Your task to perform on an android device: Play the new Maroon 5 video on YouTube Image 0: 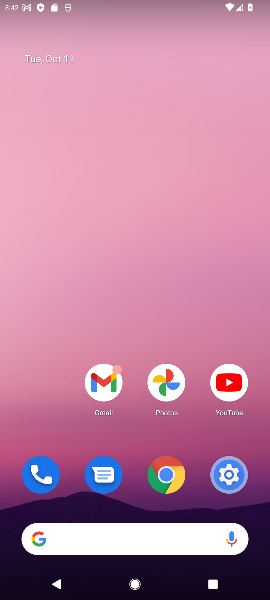
Step 0: click (232, 401)
Your task to perform on an android device: Play the new Maroon 5 video on YouTube Image 1: 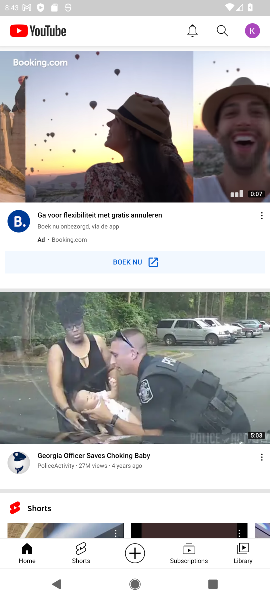
Step 1: click (226, 32)
Your task to perform on an android device: Play the new Maroon 5 video on YouTube Image 2: 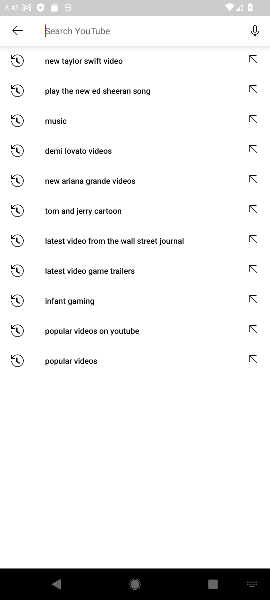
Step 2: type "new Maroon 5 video on YouTube"
Your task to perform on an android device: Play the new Maroon 5 video on YouTube Image 3: 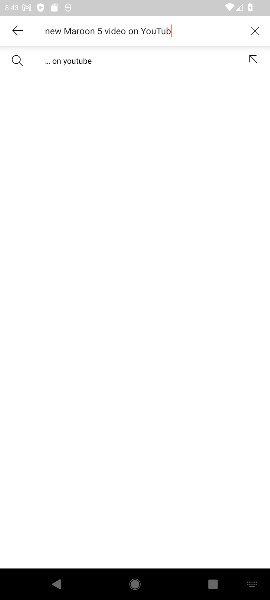
Step 3: type ""
Your task to perform on an android device: Play the new Maroon 5 video on YouTube Image 4: 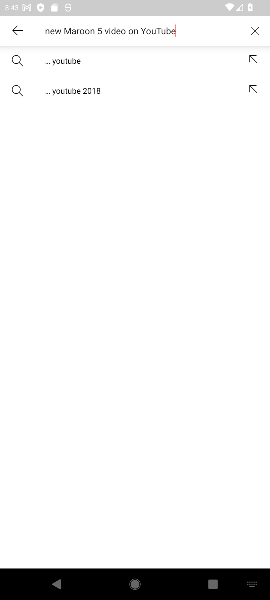
Step 4: press enter
Your task to perform on an android device: Play the new Maroon 5 video on YouTube Image 5: 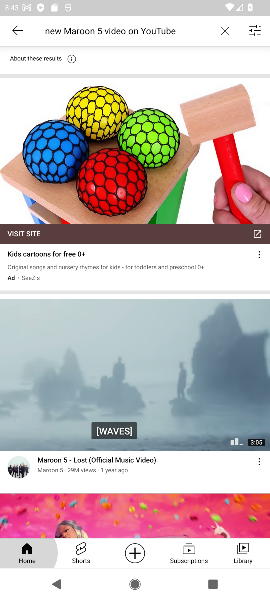
Step 5: click (48, 464)
Your task to perform on an android device: Play the new Maroon 5 video on YouTube Image 6: 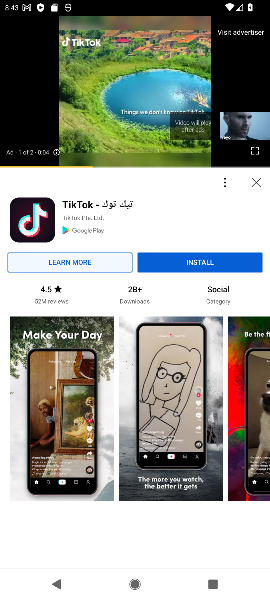
Step 6: click (253, 183)
Your task to perform on an android device: Play the new Maroon 5 video on YouTube Image 7: 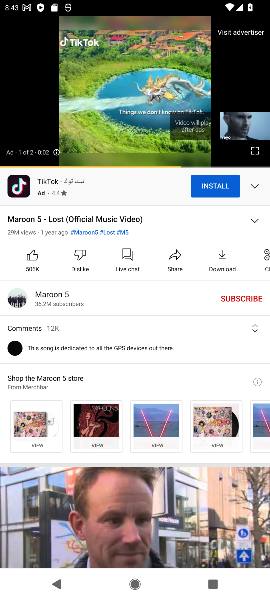
Step 7: click (55, 297)
Your task to perform on an android device: Play the new Maroon 5 video on YouTube Image 8: 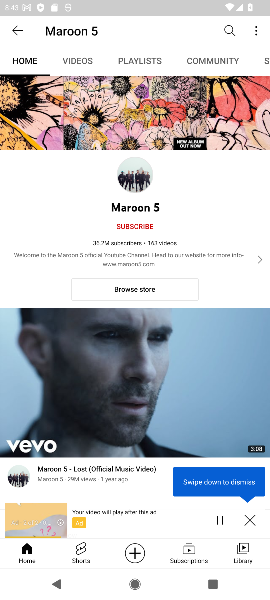
Step 8: click (88, 57)
Your task to perform on an android device: Play the new Maroon 5 video on YouTube Image 9: 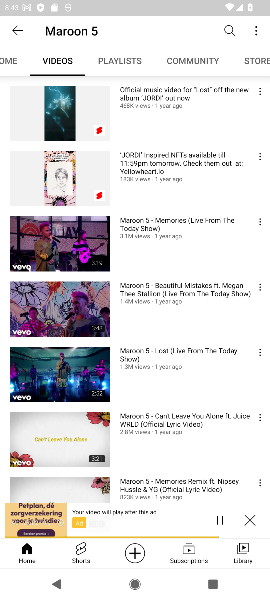
Step 9: click (252, 525)
Your task to perform on an android device: Play the new Maroon 5 video on YouTube Image 10: 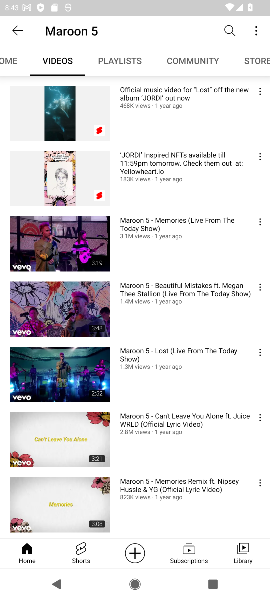
Step 10: click (136, 241)
Your task to perform on an android device: Play the new Maroon 5 video on YouTube Image 11: 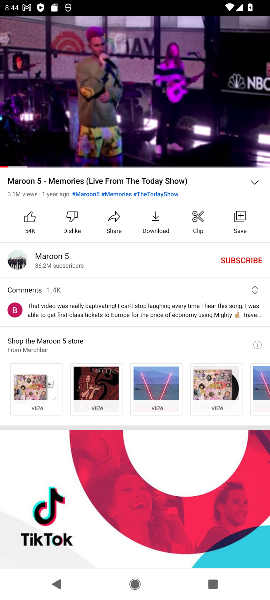
Step 11: drag from (109, 513) to (159, 379)
Your task to perform on an android device: Play the new Maroon 5 video on YouTube Image 12: 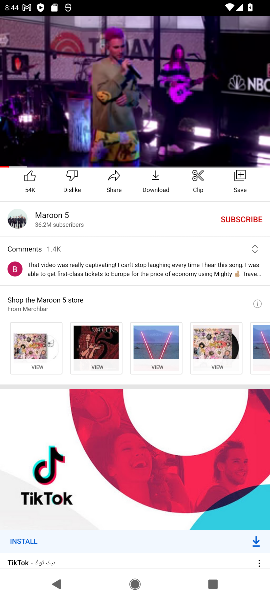
Step 12: drag from (139, 502) to (155, 307)
Your task to perform on an android device: Play the new Maroon 5 video on YouTube Image 13: 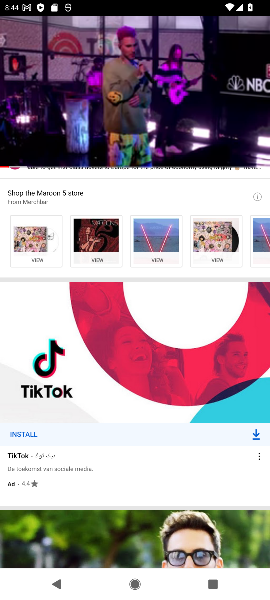
Step 13: drag from (131, 492) to (159, 292)
Your task to perform on an android device: Play the new Maroon 5 video on YouTube Image 14: 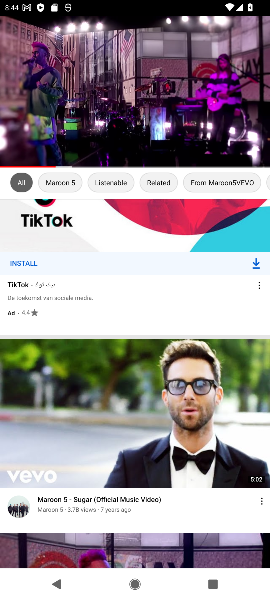
Step 14: drag from (210, 435) to (241, 65)
Your task to perform on an android device: Play the new Maroon 5 video on YouTube Image 15: 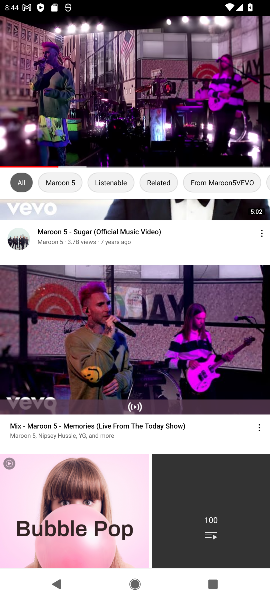
Step 15: drag from (132, 406) to (140, 192)
Your task to perform on an android device: Play the new Maroon 5 video on YouTube Image 16: 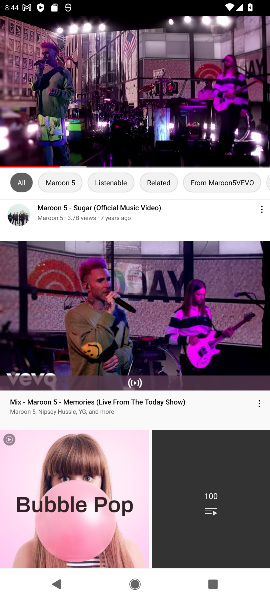
Step 16: drag from (117, 338) to (130, 239)
Your task to perform on an android device: Play the new Maroon 5 video on YouTube Image 17: 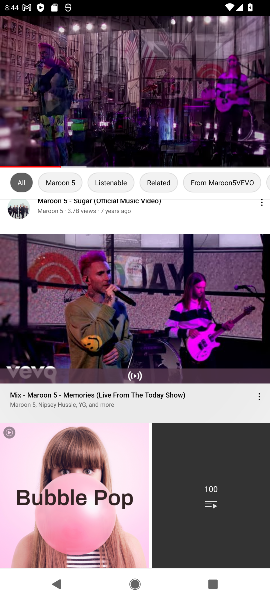
Step 17: drag from (158, 413) to (175, 205)
Your task to perform on an android device: Play the new Maroon 5 video on YouTube Image 18: 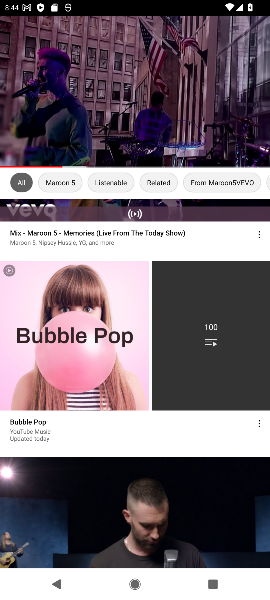
Step 18: drag from (166, 383) to (157, 189)
Your task to perform on an android device: Play the new Maroon 5 video on YouTube Image 19: 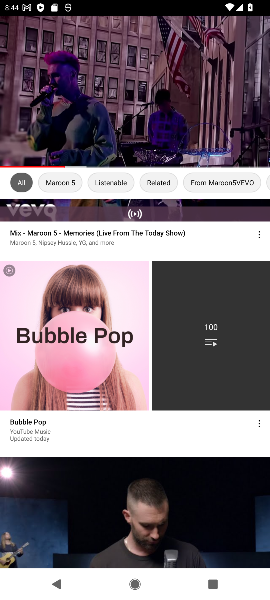
Step 19: drag from (162, 416) to (161, 172)
Your task to perform on an android device: Play the new Maroon 5 video on YouTube Image 20: 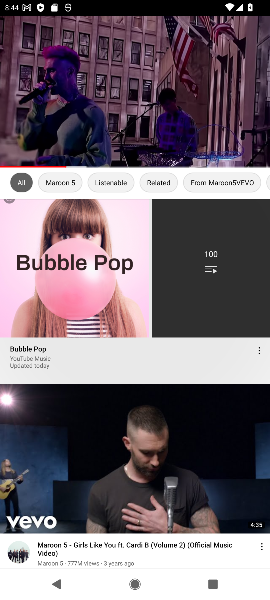
Step 20: drag from (145, 219) to (146, 94)
Your task to perform on an android device: Play the new Maroon 5 video on YouTube Image 21: 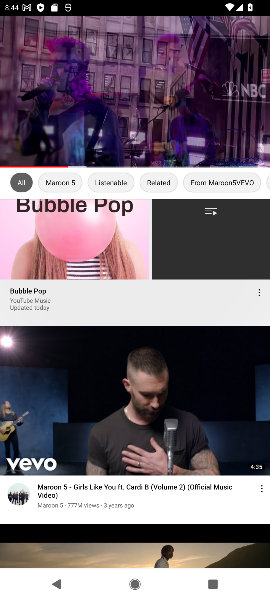
Step 21: drag from (102, 389) to (134, 144)
Your task to perform on an android device: Play the new Maroon 5 video on YouTube Image 22: 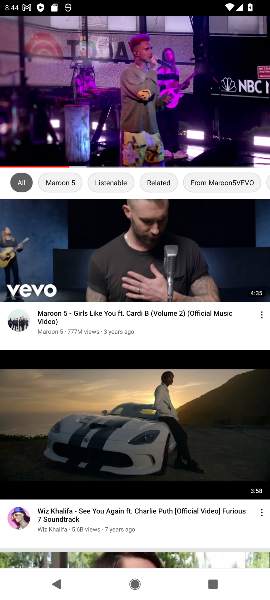
Step 22: drag from (147, 419) to (156, 303)
Your task to perform on an android device: Play the new Maroon 5 video on YouTube Image 23: 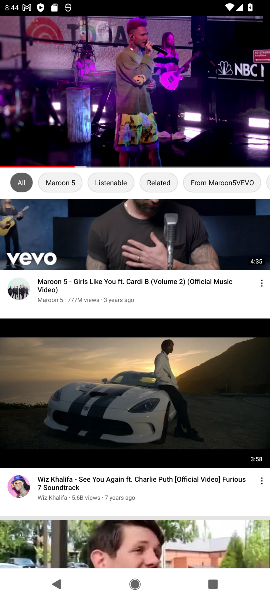
Step 23: drag from (124, 447) to (147, 116)
Your task to perform on an android device: Play the new Maroon 5 video on YouTube Image 24: 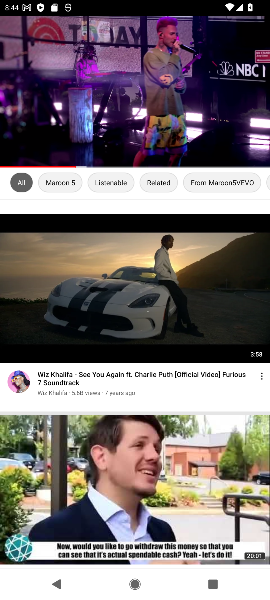
Step 24: drag from (159, 320) to (162, 89)
Your task to perform on an android device: Play the new Maroon 5 video on YouTube Image 25: 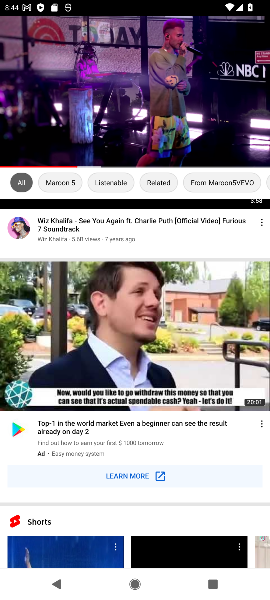
Step 25: drag from (155, 375) to (181, 92)
Your task to perform on an android device: Play the new Maroon 5 video on YouTube Image 26: 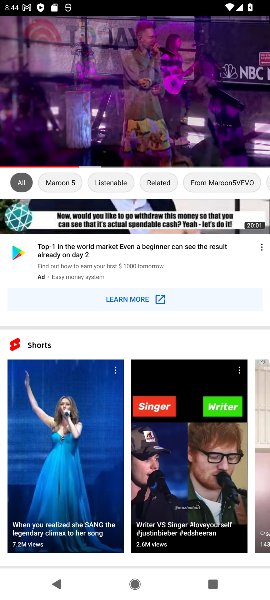
Step 26: drag from (147, 279) to (168, 97)
Your task to perform on an android device: Play the new Maroon 5 video on YouTube Image 27: 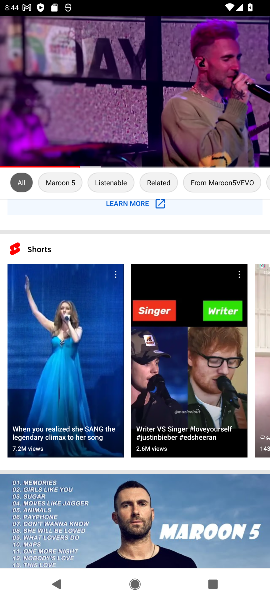
Step 27: drag from (155, 258) to (156, 172)
Your task to perform on an android device: Play the new Maroon 5 video on YouTube Image 28: 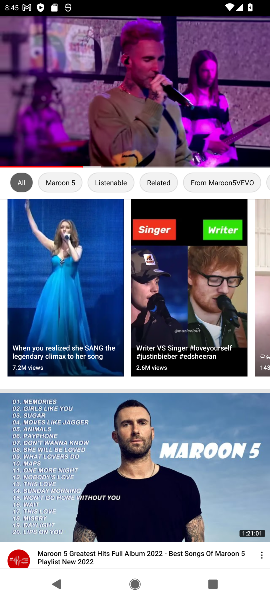
Step 28: drag from (130, 389) to (149, 198)
Your task to perform on an android device: Play the new Maroon 5 video on YouTube Image 29: 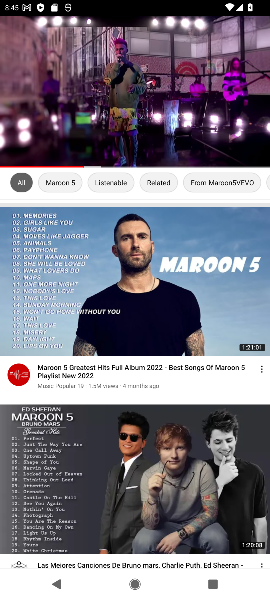
Step 29: drag from (148, 443) to (164, 183)
Your task to perform on an android device: Play the new Maroon 5 video on YouTube Image 30: 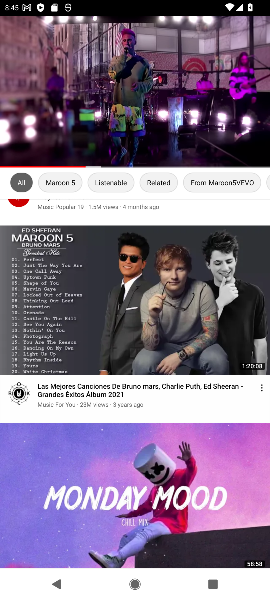
Step 30: drag from (126, 452) to (136, 279)
Your task to perform on an android device: Play the new Maroon 5 video on YouTube Image 31: 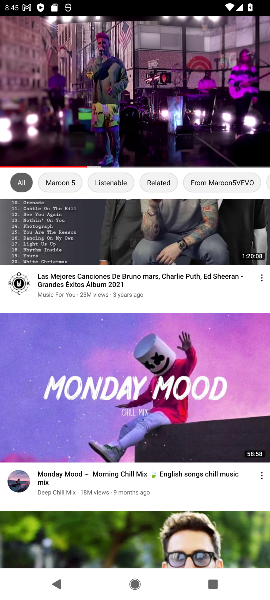
Step 31: drag from (125, 439) to (151, 190)
Your task to perform on an android device: Play the new Maroon 5 video on YouTube Image 32: 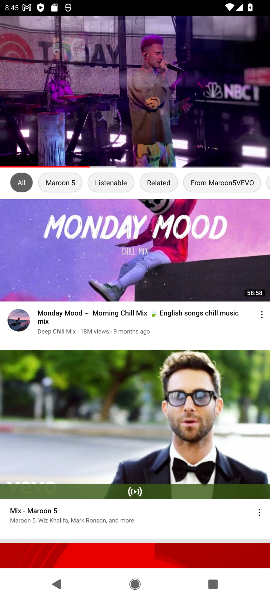
Step 32: drag from (131, 352) to (172, 149)
Your task to perform on an android device: Play the new Maroon 5 video on YouTube Image 33: 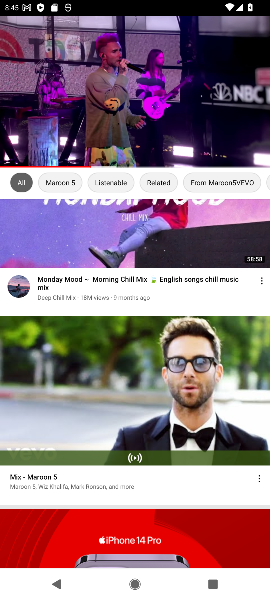
Step 33: drag from (181, 369) to (177, 164)
Your task to perform on an android device: Play the new Maroon 5 video on YouTube Image 34: 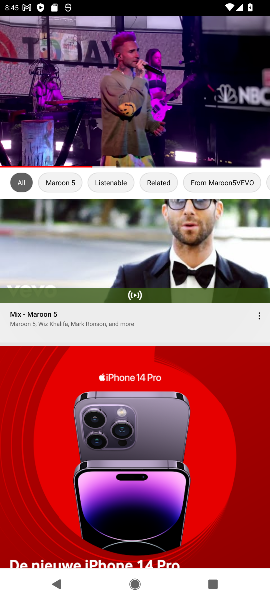
Step 34: drag from (178, 292) to (174, 165)
Your task to perform on an android device: Play the new Maroon 5 video on YouTube Image 35: 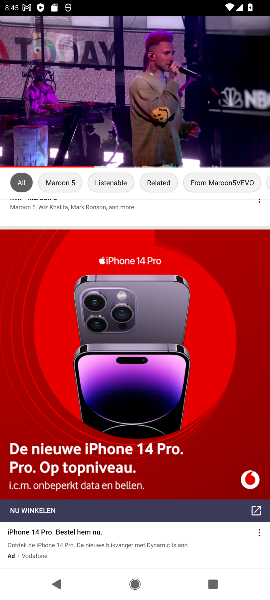
Step 35: drag from (163, 332) to (156, 183)
Your task to perform on an android device: Play the new Maroon 5 video on YouTube Image 36: 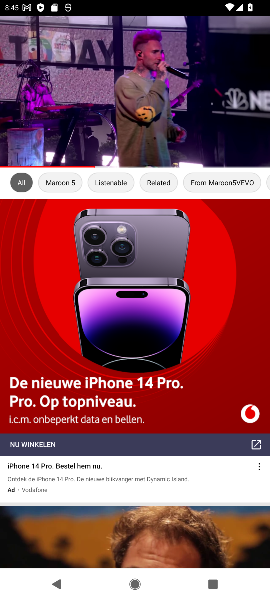
Step 36: drag from (134, 447) to (142, 199)
Your task to perform on an android device: Play the new Maroon 5 video on YouTube Image 37: 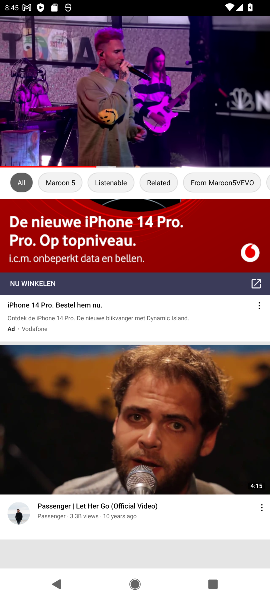
Step 37: drag from (135, 411) to (147, 216)
Your task to perform on an android device: Play the new Maroon 5 video on YouTube Image 38: 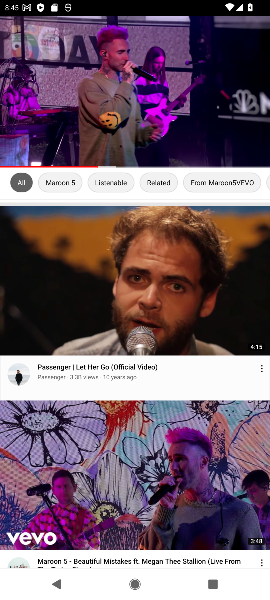
Step 38: drag from (147, 384) to (149, 213)
Your task to perform on an android device: Play the new Maroon 5 video on YouTube Image 39: 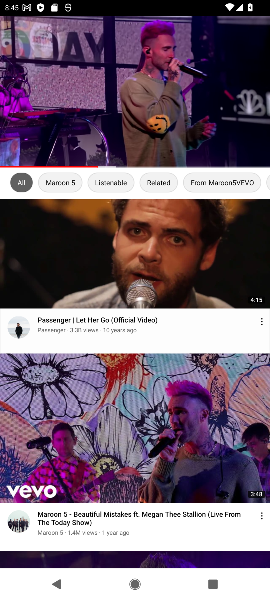
Step 39: drag from (147, 290) to (150, 214)
Your task to perform on an android device: Play the new Maroon 5 video on YouTube Image 40: 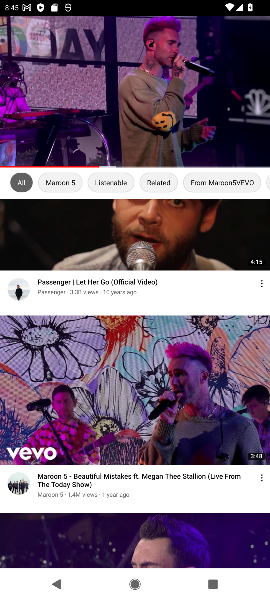
Step 40: drag from (132, 375) to (145, 208)
Your task to perform on an android device: Play the new Maroon 5 video on YouTube Image 41: 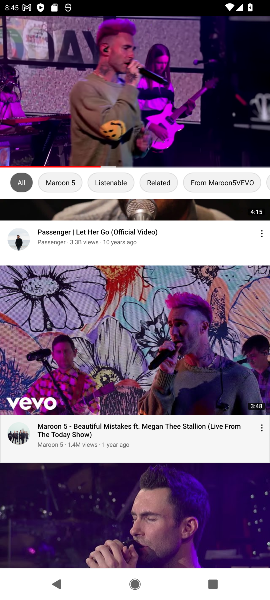
Step 41: drag from (133, 427) to (146, 217)
Your task to perform on an android device: Play the new Maroon 5 video on YouTube Image 42: 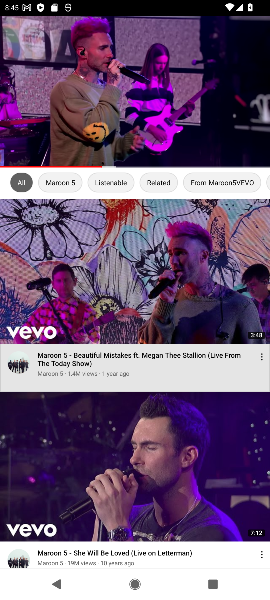
Step 42: drag from (105, 448) to (113, 284)
Your task to perform on an android device: Play the new Maroon 5 video on YouTube Image 43: 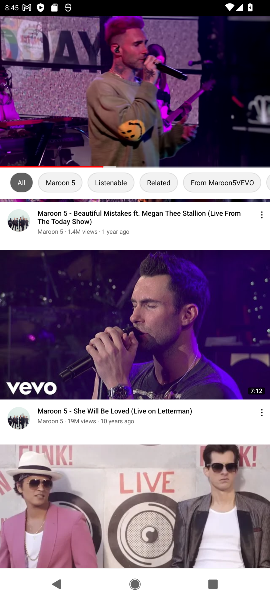
Step 43: drag from (90, 435) to (93, 244)
Your task to perform on an android device: Play the new Maroon 5 video on YouTube Image 44: 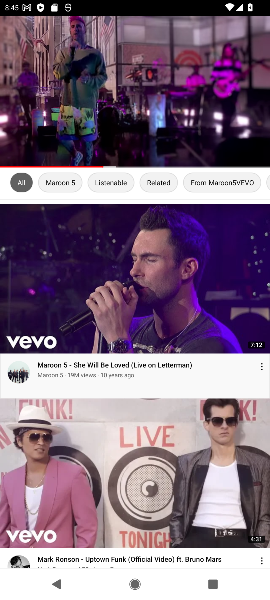
Step 44: drag from (115, 410) to (141, 165)
Your task to perform on an android device: Play the new Maroon 5 video on YouTube Image 45: 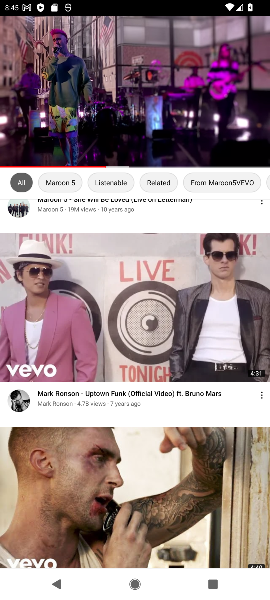
Step 45: drag from (144, 330) to (127, 160)
Your task to perform on an android device: Play the new Maroon 5 video on YouTube Image 46: 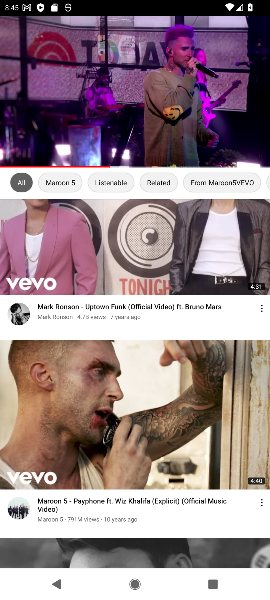
Step 46: drag from (174, 435) to (170, 227)
Your task to perform on an android device: Play the new Maroon 5 video on YouTube Image 47: 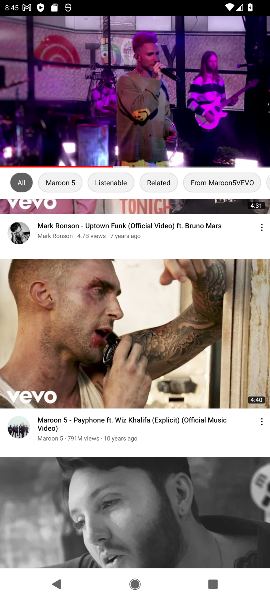
Step 47: drag from (177, 377) to (186, 279)
Your task to perform on an android device: Play the new Maroon 5 video on YouTube Image 48: 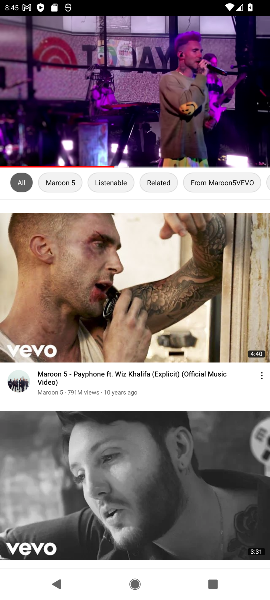
Step 48: drag from (161, 555) to (171, 250)
Your task to perform on an android device: Play the new Maroon 5 video on YouTube Image 49: 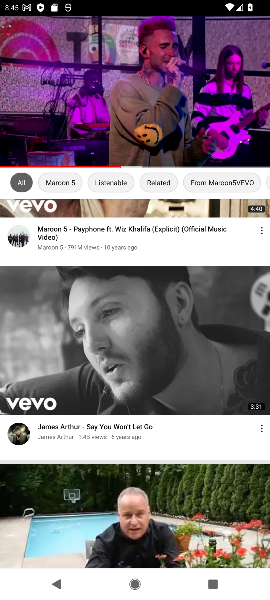
Step 49: drag from (97, 505) to (123, 345)
Your task to perform on an android device: Play the new Maroon 5 video on YouTube Image 50: 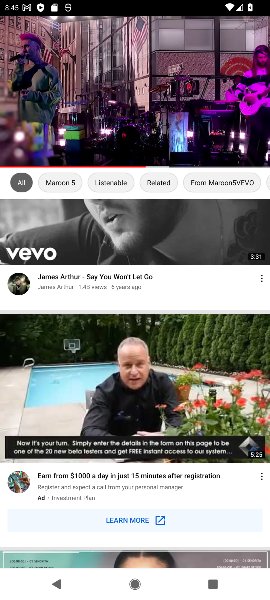
Step 50: drag from (201, 433) to (212, 173)
Your task to perform on an android device: Play the new Maroon 5 video on YouTube Image 51: 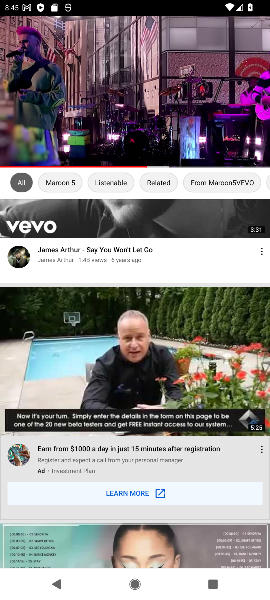
Step 51: drag from (212, 307) to (204, 164)
Your task to perform on an android device: Play the new Maroon 5 video on YouTube Image 52: 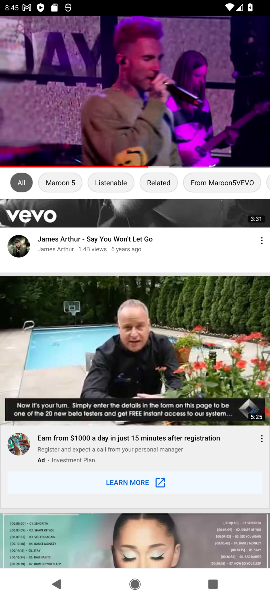
Step 52: drag from (140, 277) to (145, 117)
Your task to perform on an android device: Play the new Maroon 5 video on YouTube Image 53: 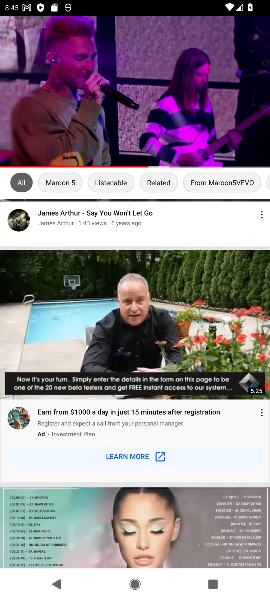
Step 53: drag from (156, 467) to (188, 165)
Your task to perform on an android device: Play the new Maroon 5 video on YouTube Image 54: 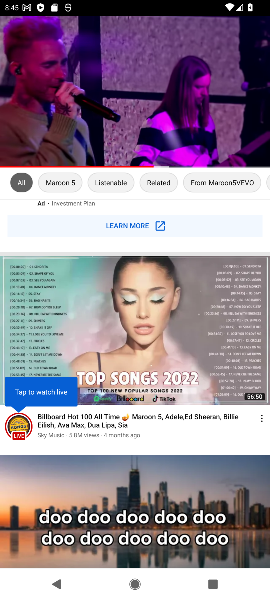
Step 54: drag from (114, 429) to (129, 55)
Your task to perform on an android device: Play the new Maroon 5 video on YouTube Image 55: 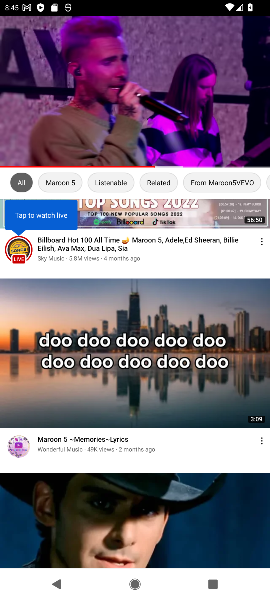
Step 55: drag from (116, 208) to (107, 107)
Your task to perform on an android device: Play the new Maroon 5 video on YouTube Image 56: 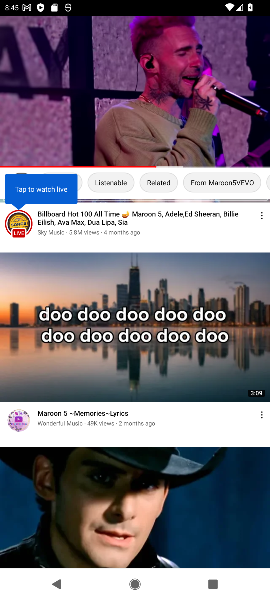
Step 56: drag from (86, 353) to (98, 98)
Your task to perform on an android device: Play the new Maroon 5 video on YouTube Image 57: 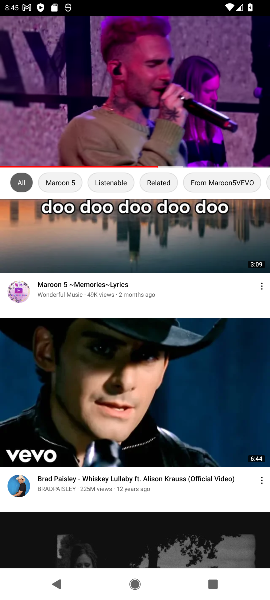
Step 57: drag from (135, 362) to (133, 103)
Your task to perform on an android device: Play the new Maroon 5 video on YouTube Image 58: 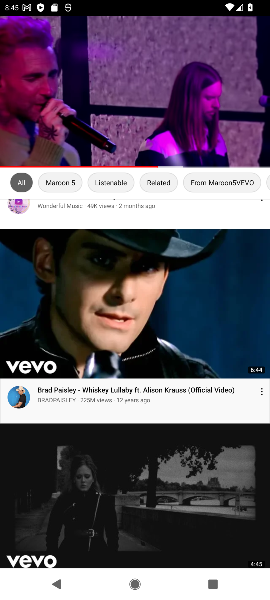
Step 58: drag from (165, 304) to (164, 99)
Your task to perform on an android device: Play the new Maroon 5 video on YouTube Image 59: 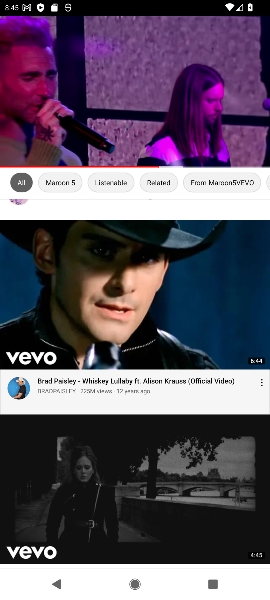
Step 59: drag from (183, 382) to (190, 140)
Your task to perform on an android device: Play the new Maroon 5 video on YouTube Image 60: 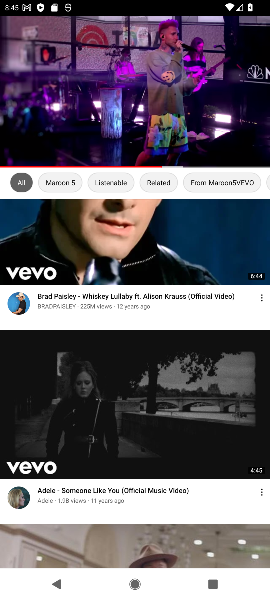
Step 60: drag from (87, 293) to (114, 81)
Your task to perform on an android device: Play the new Maroon 5 video on YouTube Image 61: 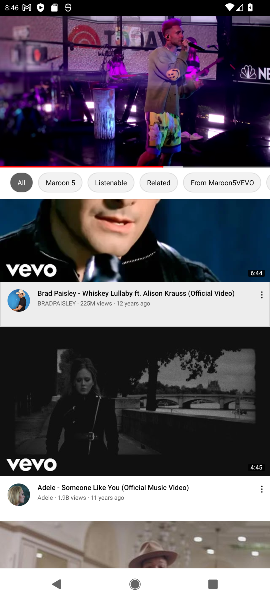
Step 61: drag from (143, 351) to (139, 135)
Your task to perform on an android device: Play the new Maroon 5 video on YouTube Image 62: 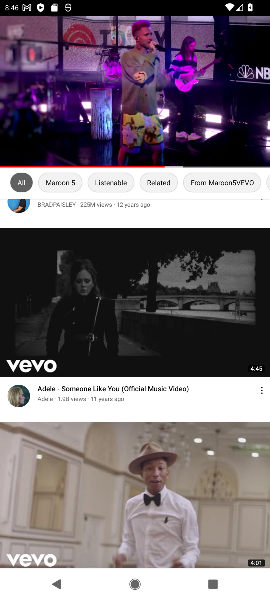
Step 62: drag from (150, 388) to (155, 118)
Your task to perform on an android device: Play the new Maroon 5 video on YouTube Image 63: 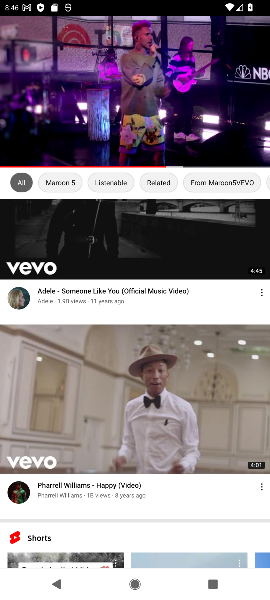
Step 63: drag from (136, 386) to (156, 78)
Your task to perform on an android device: Play the new Maroon 5 video on YouTube Image 64: 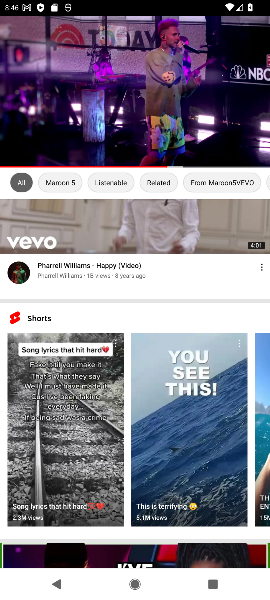
Step 64: drag from (151, 312) to (167, 110)
Your task to perform on an android device: Play the new Maroon 5 video on YouTube Image 65: 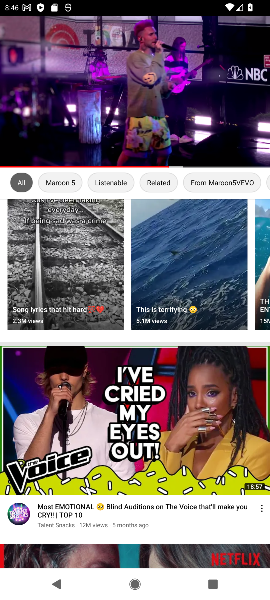
Step 65: click (152, 106)
Your task to perform on an android device: Play the new Maroon 5 video on YouTube Image 66: 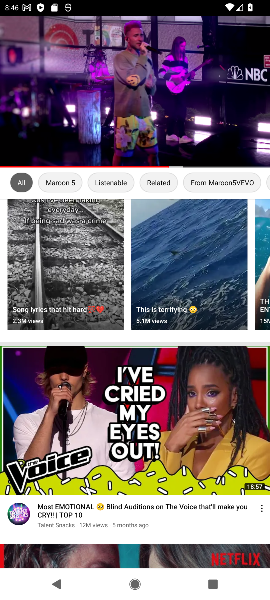
Step 66: drag from (154, 409) to (166, 153)
Your task to perform on an android device: Play the new Maroon 5 video on YouTube Image 67: 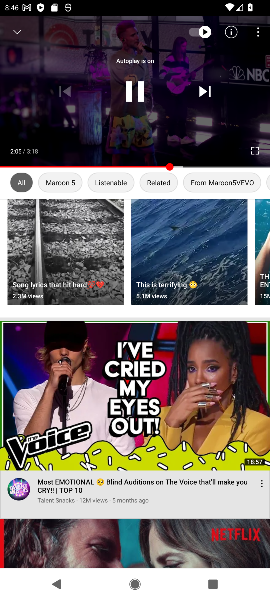
Step 67: drag from (173, 373) to (176, 127)
Your task to perform on an android device: Play the new Maroon 5 video on YouTube Image 68: 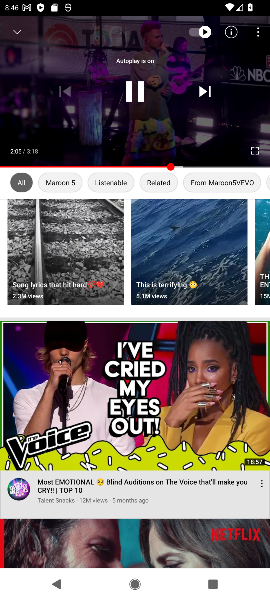
Step 68: drag from (154, 364) to (163, 134)
Your task to perform on an android device: Play the new Maroon 5 video on YouTube Image 69: 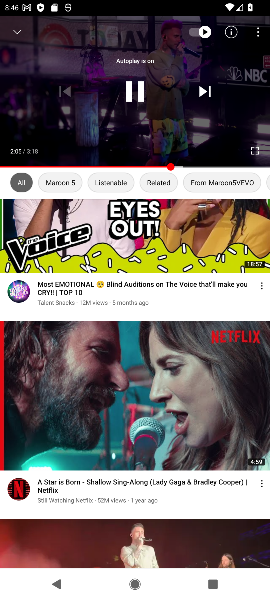
Step 69: drag from (139, 275) to (140, 172)
Your task to perform on an android device: Play the new Maroon 5 video on YouTube Image 70: 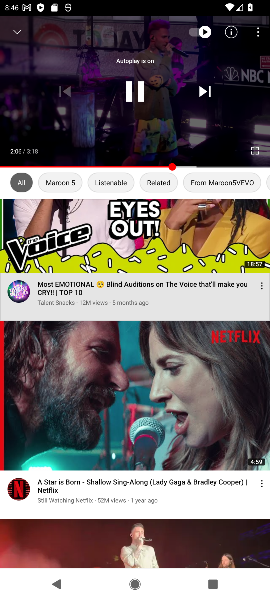
Step 70: drag from (144, 414) to (151, 238)
Your task to perform on an android device: Play the new Maroon 5 video on YouTube Image 71: 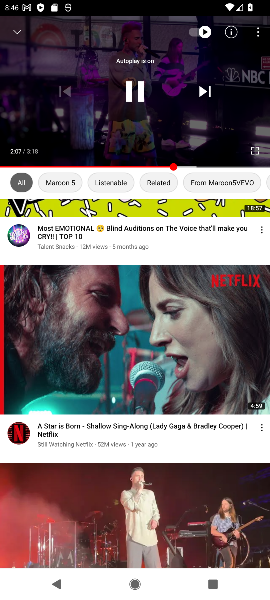
Step 71: drag from (144, 328) to (142, 246)
Your task to perform on an android device: Play the new Maroon 5 video on YouTube Image 72: 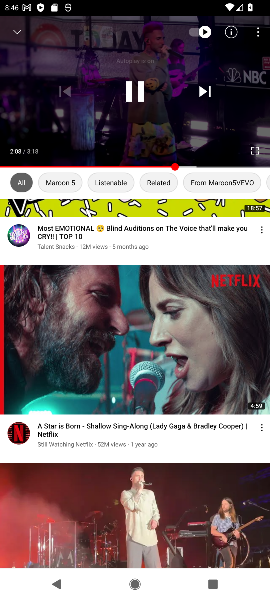
Step 72: drag from (110, 474) to (109, 241)
Your task to perform on an android device: Play the new Maroon 5 video on YouTube Image 73: 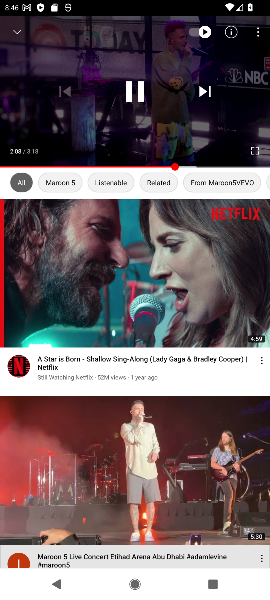
Step 73: drag from (123, 360) to (124, 251)
Your task to perform on an android device: Play the new Maroon 5 video on YouTube Image 74: 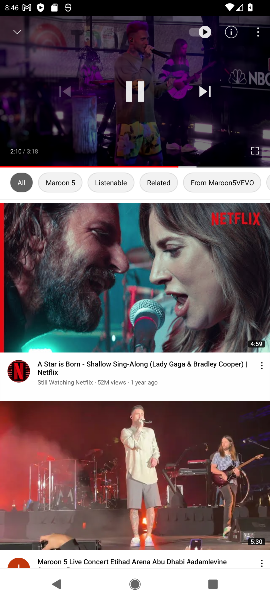
Step 74: drag from (126, 298) to (134, 241)
Your task to perform on an android device: Play the new Maroon 5 video on YouTube Image 75: 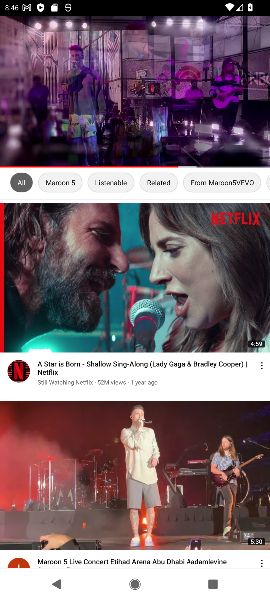
Step 75: click (135, 260)
Your task to perform on an android device: Play the new Maroon 5 video on YouTube Image 76: 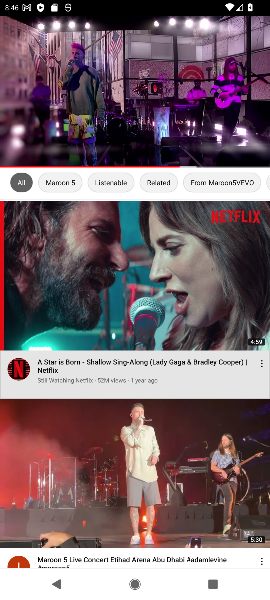
Step 76: drag from (158, 420) to (142, 232)
Your task to perform on an android device: Play the new Maroon 5 video on YouTube Image 77: 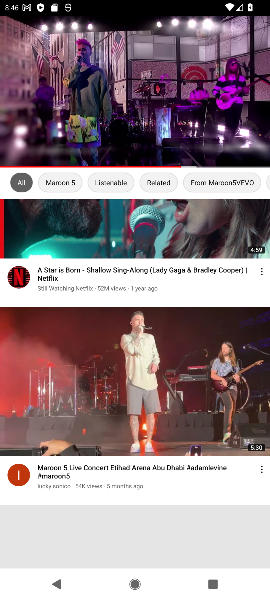
Step 77: drag from (152, 419) to (154, 241)
Your task to perform on an android device: Play the new Maroon 5 video on YouTube Image 78: 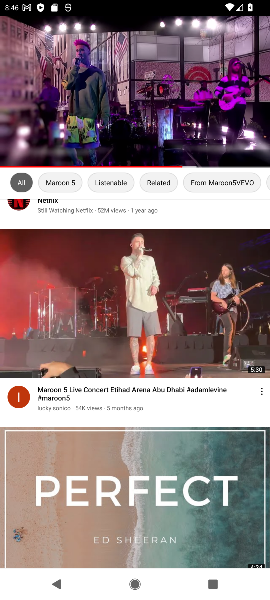
Step 78: drag from (117, 431) to (119, 241)
Your task to perform on an android device: Play the new Maroon 5 video on YouTube Image 79: 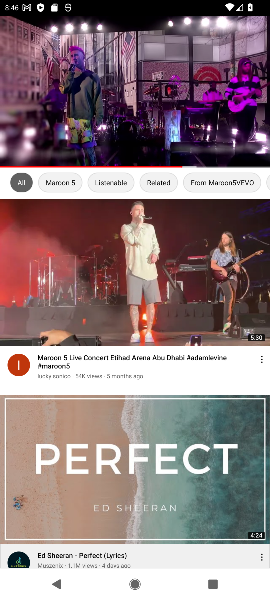
Step 79: drag from (140, 478) to (160, 228)
Your task to perform on an android device: Play the new Maroon 5 video on YouTube Image 80: 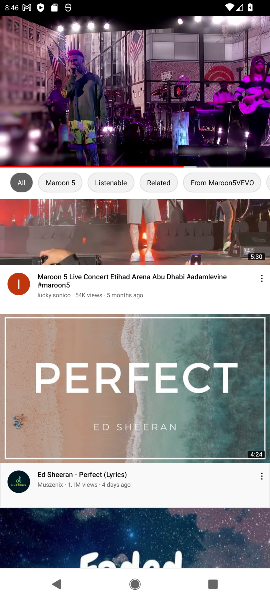
Step 80: drag from (144, 414) to (150, 231)
Your task to perform on an android device: Play the new Maroon 5 video on YouTube Image 81: 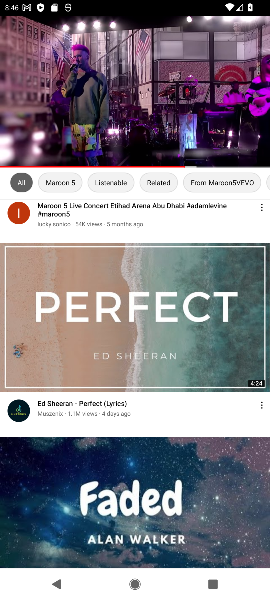
Step 81: drag from (138, 393) to (165, 255)
Your task to perform on an android device: Play the new Maroon 5 video on YouTube Image 82: 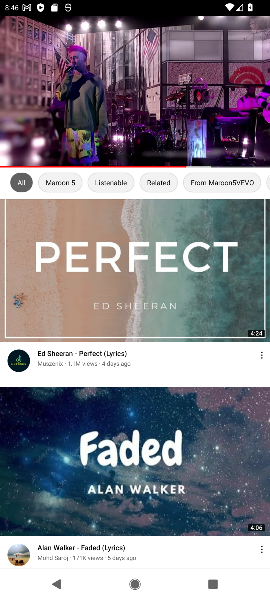
Step 82: drag from (138, 513) to (136, 284)
Your task to perform on an android device: Play the new Maroon 5 video on YouTube Image 83: 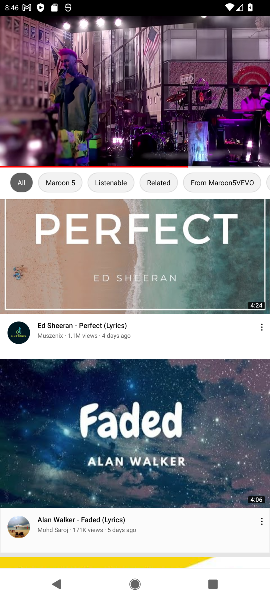
Step 83: drag from (117, 364) to (116, 250)
Your task to perform on an android device: Play the new Maroon 5 video on YouTube Image 84: 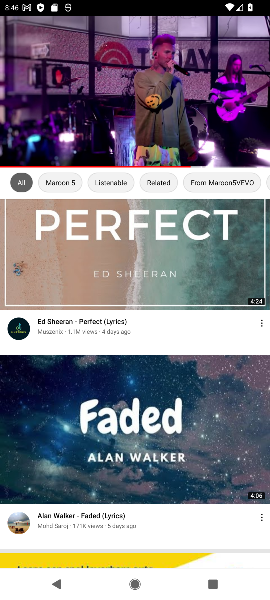
Step 84: drag from (128, 373) to (137, 179)
Your task to perform on an android device: Play the new Maroon 5 video on YouTube Image 85: 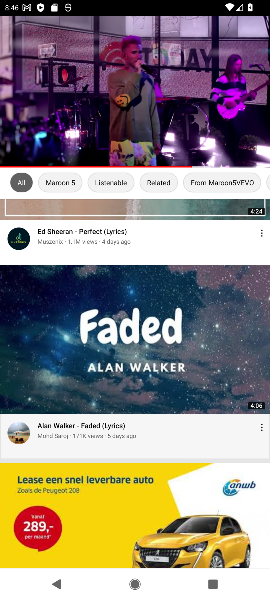
Step 85: drag from (160, 421) to (146, 198)
Your task to perform on an android device: Play the new Maroon 5 video on YouTube Image 86: 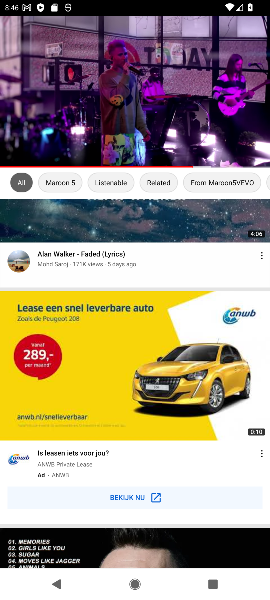
Step 86: drag from (160, 368) to (162, 256)
Your task to perform on an android device: Play the new Maroon 5 video on YouTube Image 87: 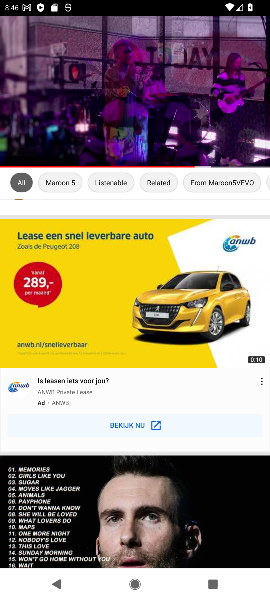
Step 87: drag from (190, 411) to (187, 323)
Your task to perform on an android device: Play the new Maroon 5 video on YouTube Image 88: 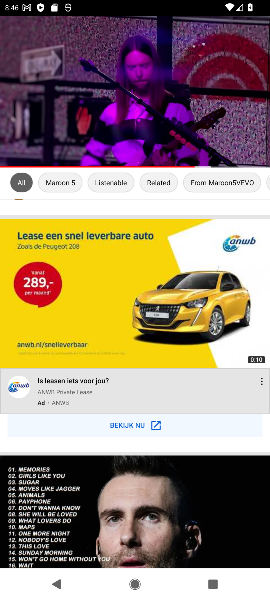
Step 88: drag from (175, 444) to (156, 337)
Your task to perform on an android device: Play the new Maroon 5 video on YouTube Image 89: 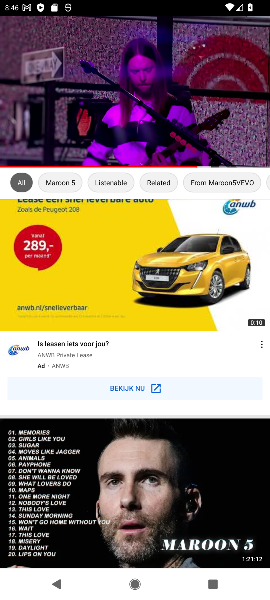
Step 89: drag from (154, 457) to (149, 318)
Your task to perform on an android device: Play the new Maroon 5 video on YouTube Image 90: 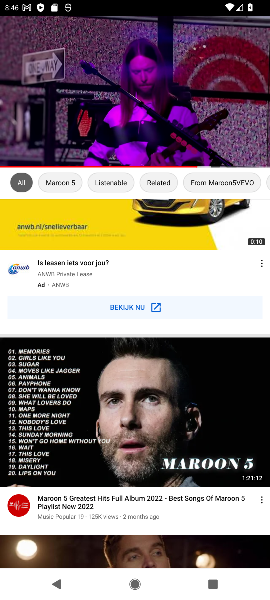
Step 90: drag from (139, 426) to (136, 316)
Your task to perform on an android device: Play the new Maroon 5 video on YouTube Image 91: 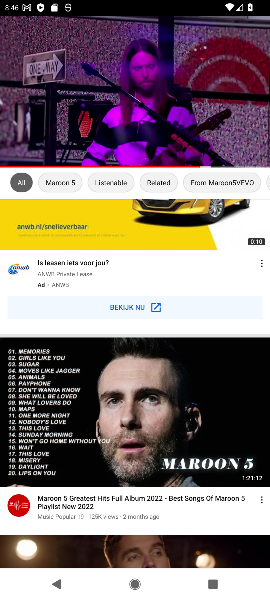
Step 91: drag from (148, 349) to (145, 213)
Your task to perform on an android device: Play the new Maroon 5 video on YouTube Image 92: 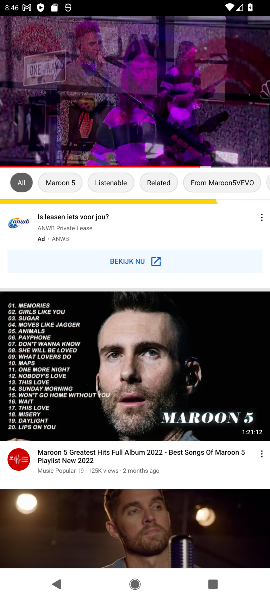
Step 92: drag from (168, 349) to (184, 223)
Your task to perform on an android device: Play the new Maroon 5 video on YouTube Image 93: 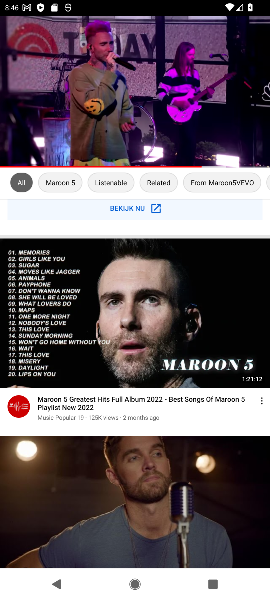
Step 93: drag from (183, 418) to (180, 223)
Your task to perform on an android device: Play the new Maroon 5 video on YouTube Image 94: 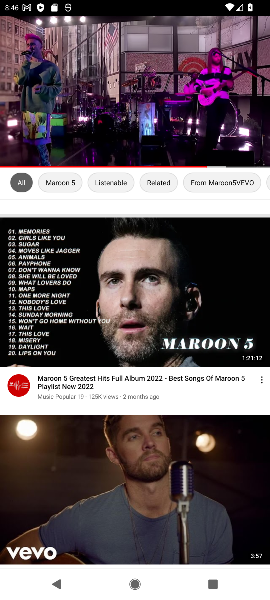
Step 94: click (113, 332)
Your task to perform on an android device: Play the new Maroon 5 video on YouTube Image 95: 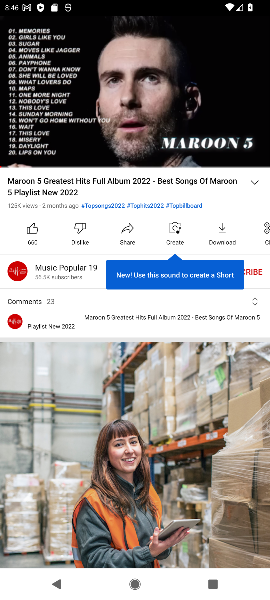
Step 95: task complete